Your task to perform on an android device: set the stopwatch Image 0: 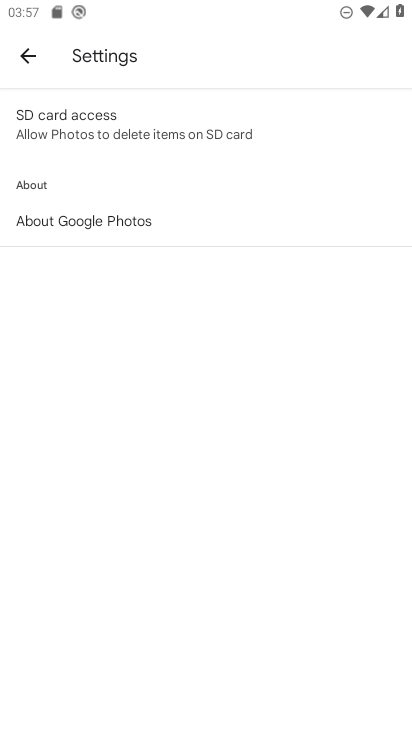
Step 0: press home button
Your task to perform on an android device: set the stopwatch Image 1: 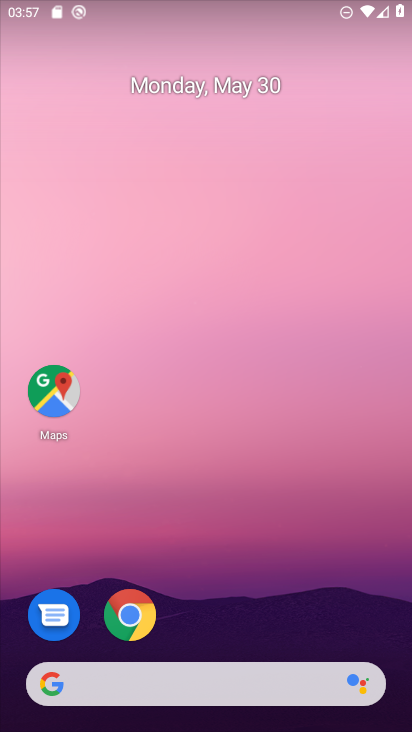
Step 1: drag from (274, 604) to (158, 66)
Your task to perform on an android device: set the stopwatch Image 2: 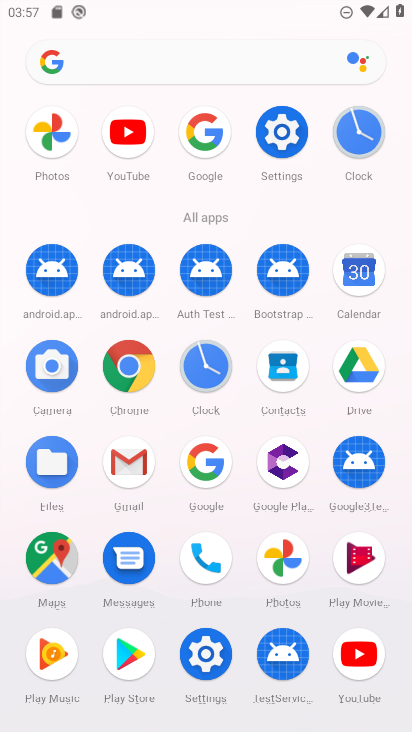
Step 2: click (359, 135)
Your task to perform on an android device: set the stopwatch Image 3: 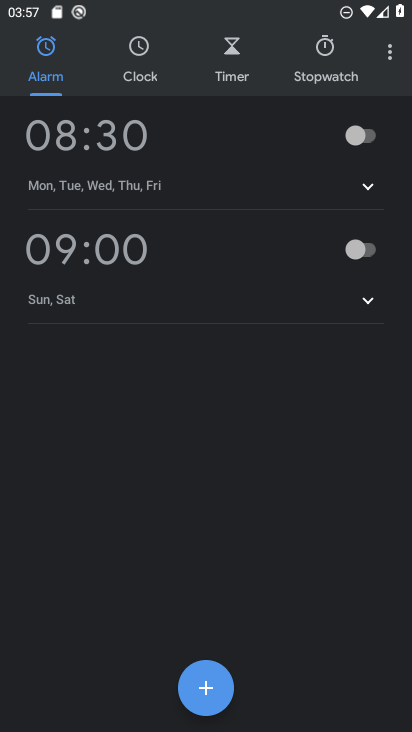
Step 3: click (326, 49)
Your task to perform on an android device: set the stopwatch Image 4: 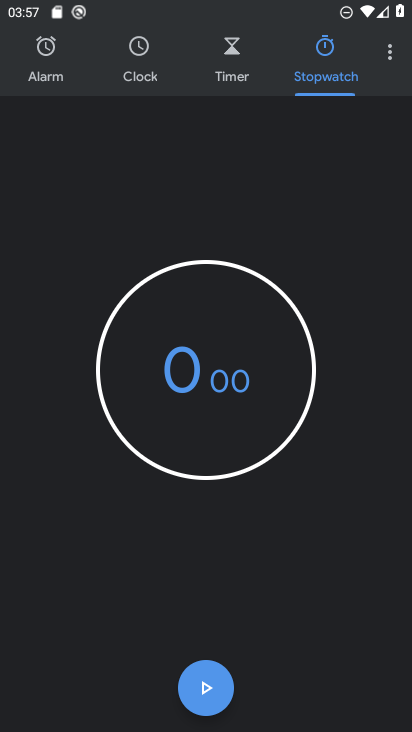
Step 4: click (207, 689)
Your task to perform on an android device: set the stopwatch Image 5: 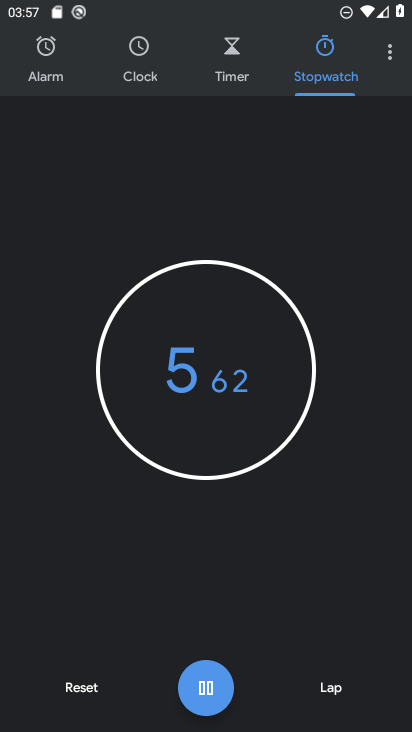
Step 5: click (207, 689)
Your task to perform on an android device: set the stopwatch Image 6: 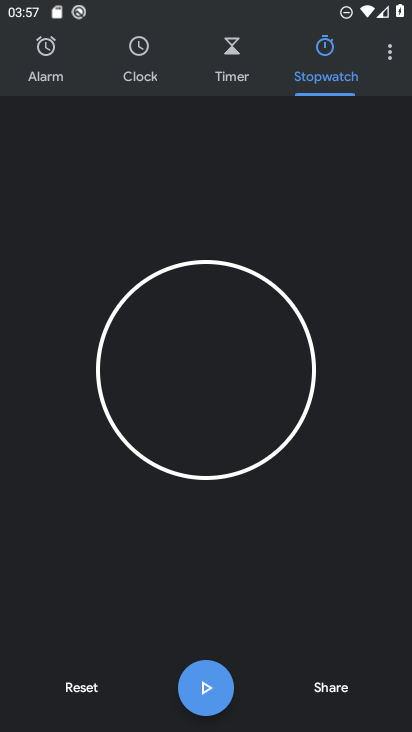
Step 6: task complete